Your task to perform on an android device: Search for pizza restaurants on Maps Image 0: 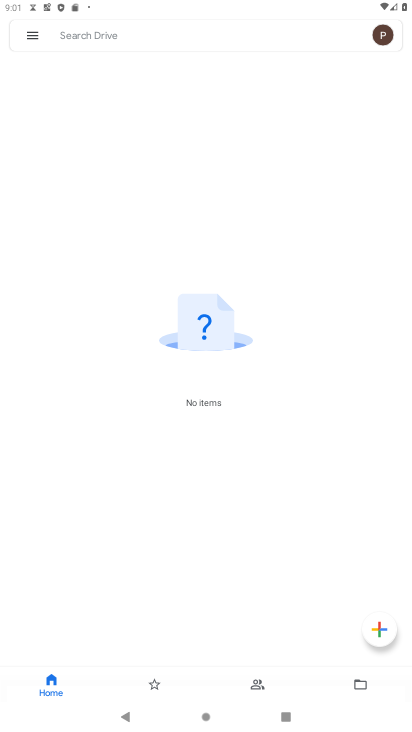
Step 0: press home button
Your task to perform on an android device: Search for pizza restaurants on Maps Image 1: 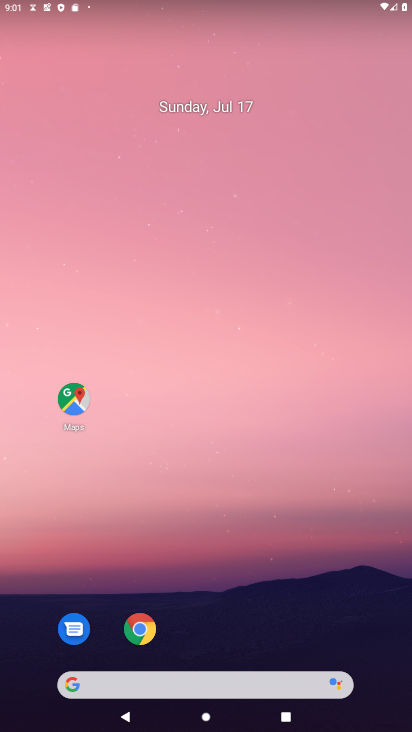
Step 1: drag from (238, 669) to (259, 81)
Your task to perform on an android device: Search for pizza restaurants on Maps Image 2: 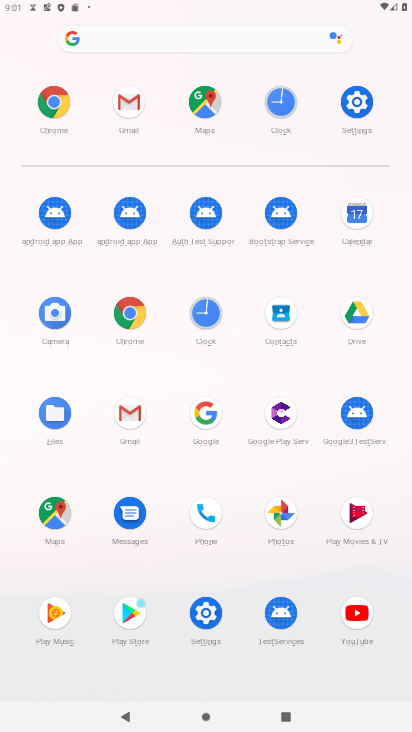
Step 2: click (50, 507)
Your task to perform on an android device: Search for pizza restaurants on Maps Image 3: 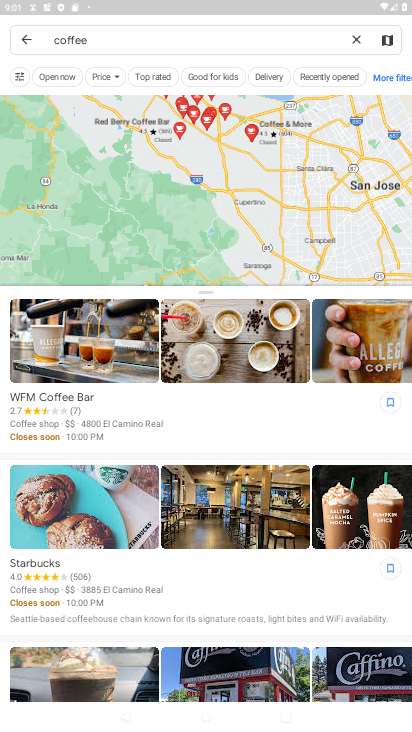
Step 3: click (358, 34)
Your task to perform on an android device: Search for pizza restaurants on Maps Image 4: 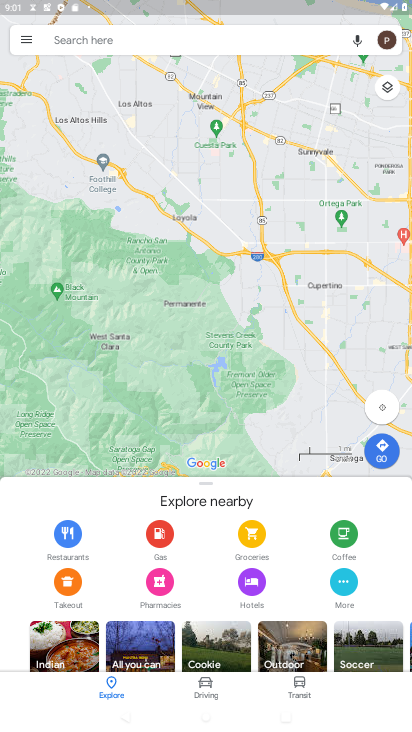
Step 4: click (167, 42)
Your task to perform on an android device: Search for pizza restaurants on Maps Image 5: 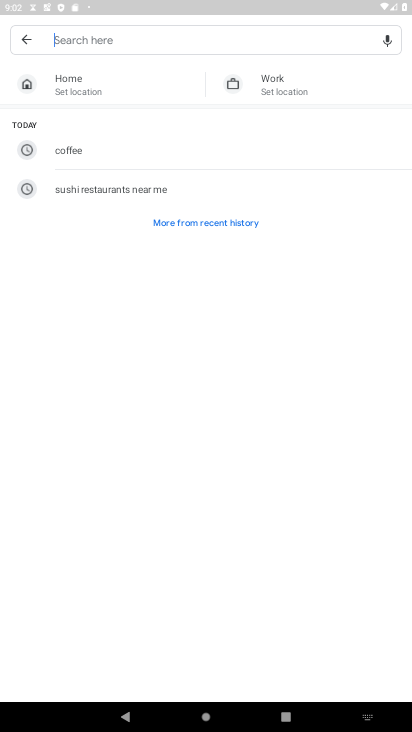
Step 5: type "Pizza restaurants"
Your task to perform on an android device: Search for pizza restaurants on Maps Image 6: 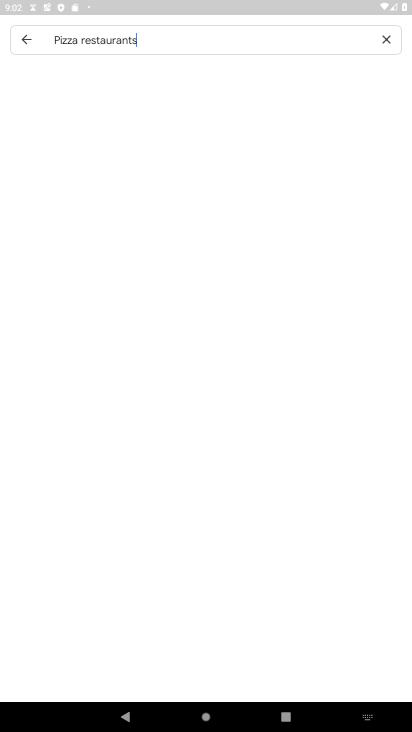
Step 6: type ""
Your task to perform on an android device: Search for pizza restaurants on Maps Image 7: 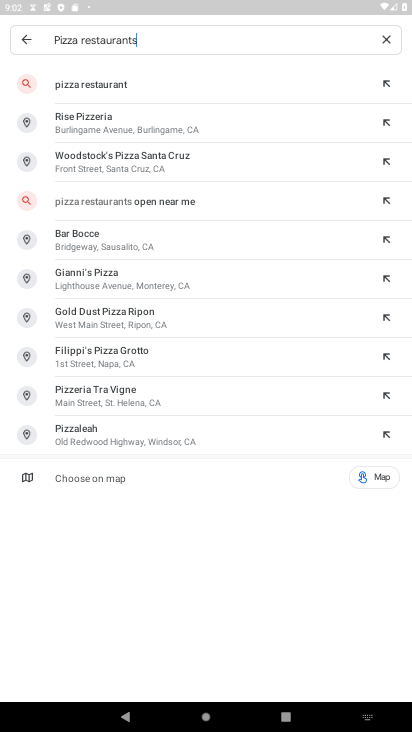
Step 7: click (85, 81)
Your task to perform on an android device: Search for pizza restaurants on Maps Image 8: 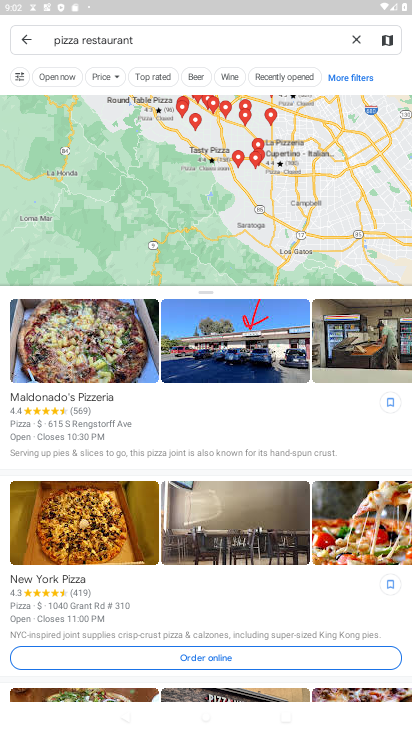
Step 8: task complete